Your task to perform on an android device: visit the assistant section in the google photos Image 0: 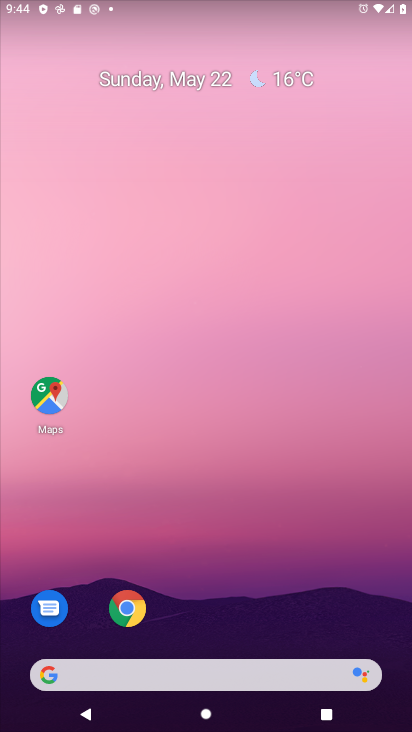
Step 0: drag from (274, 566) to (227, 14)
Your task to perform on an android device: visit the assistant section in the google photos Image 1: 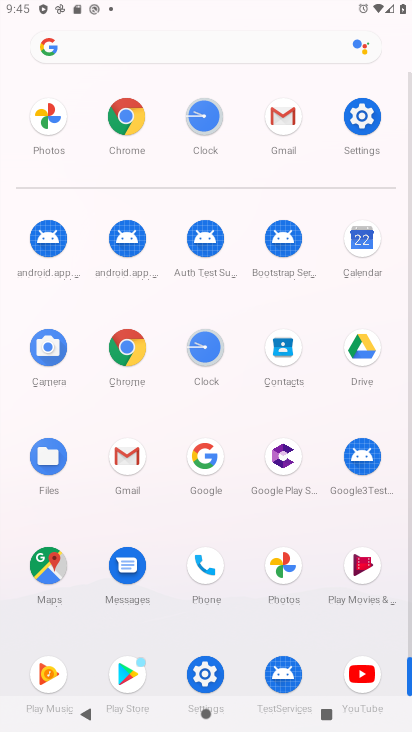
Step 1: drag from (9, 530) to (12, 179)
Your task to perform on an android device: visit the assistant section in the google photos Image 2: 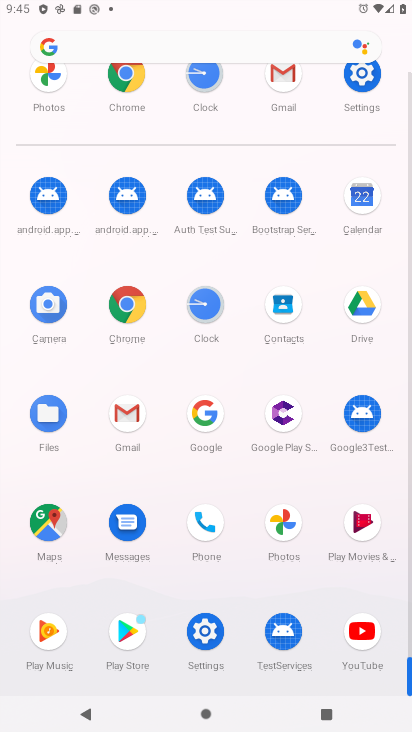
Step 2: click (281, 523)
Your task to perform on an android device: visit the assistant section in the google photos Image 3: 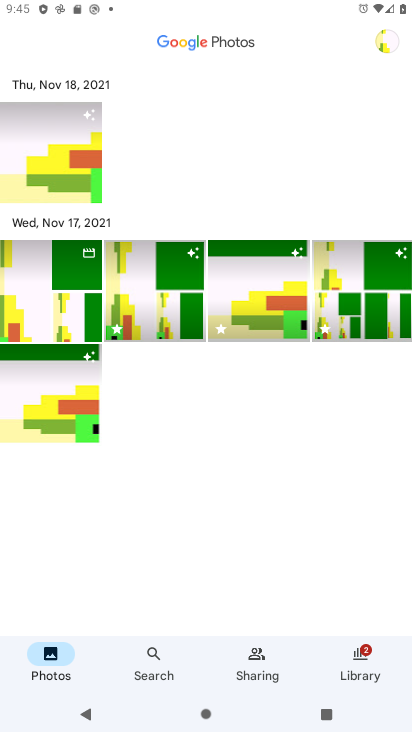
Step 3: task complete